Your task to perform on an android device: Do I have any events today? Image 0: 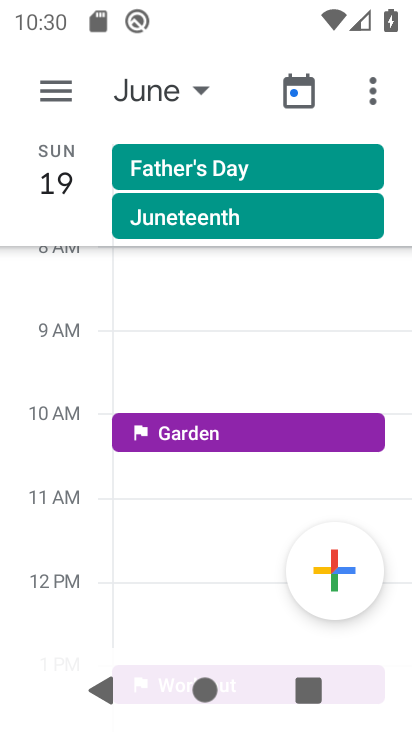
Step 0: press home button
Your task to perform on an android device: Do I have any events today? Image 1: 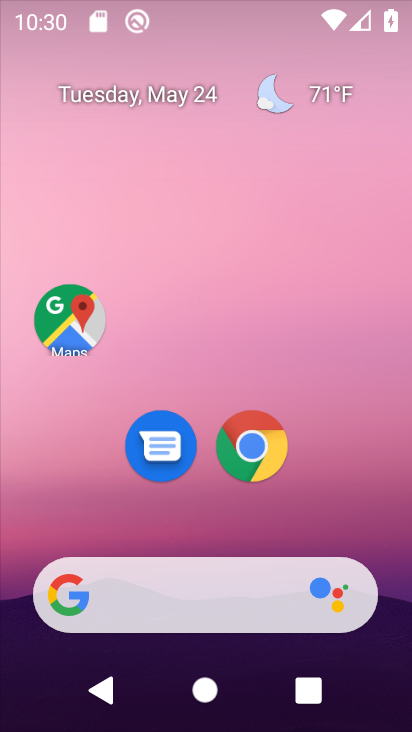
Step 1: drag from (234, 521) to (266, 161)
Your task to perform on an android device: Do I have any events today? Image 2: 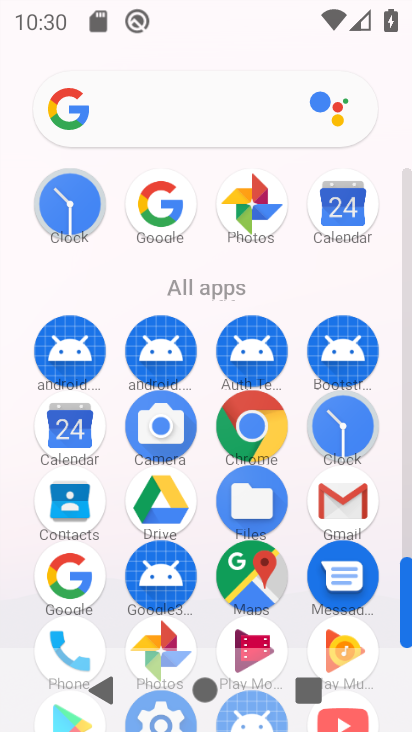
Step 2: click (89, 442)
Your task to perform on an android device: Do I have any events today? Image 3: 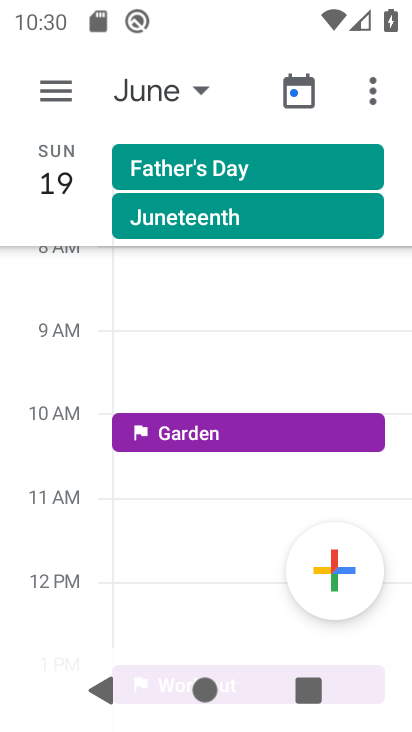
Step 3: task complete